Your task to perform on an android device: What's on my calendar today? Image 0: 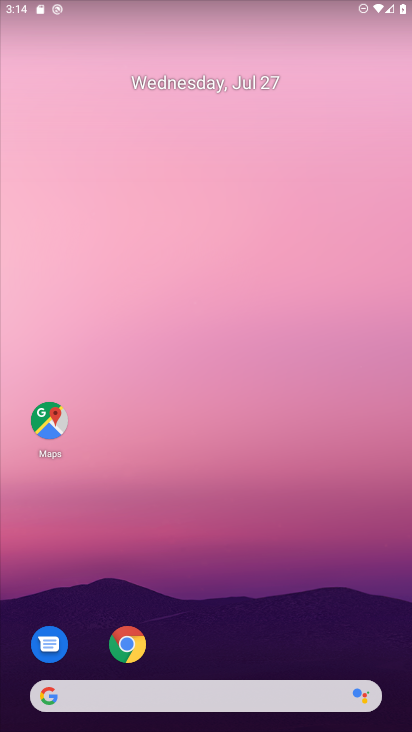
Step 0: drag from (193, 655) to (249, 95)
Your task to perform on an android device: What's on my calendar today? Image 1: 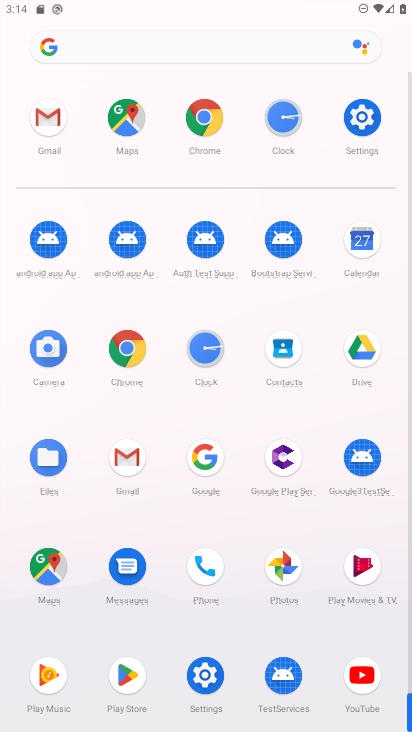
Step 1: click (373, 252)
Your task to perform on an android device: What's on my calendar today? Image 2: 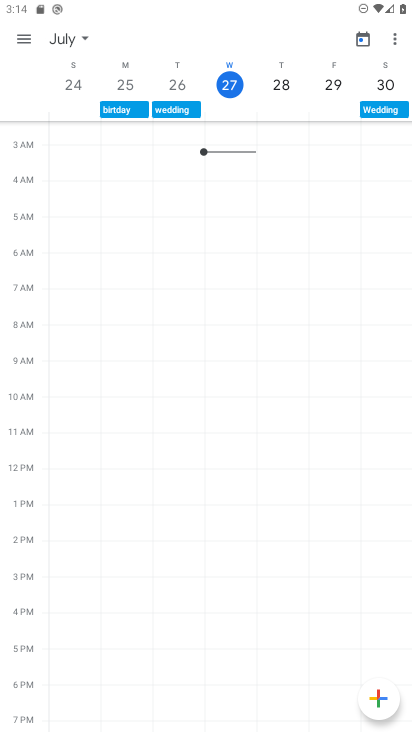
Step 2: click (24, 36)
Your task to perform on an android device: What's on my calendar today? Image 3: 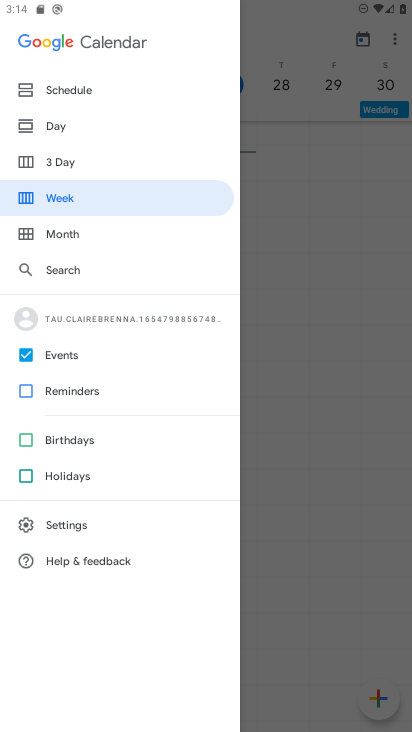
Step 3: click (72, 132)
Your task to perform on an android device: What's on my calendar today? Image 4: 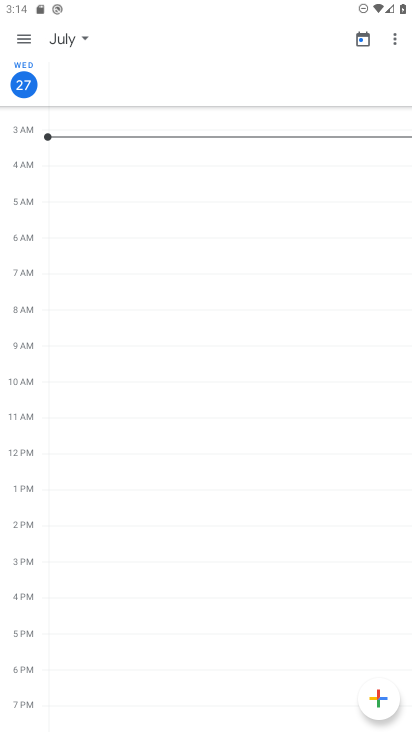
Step 4: task complete